Your task to perform on an android device: turn notification dots off Image 0: 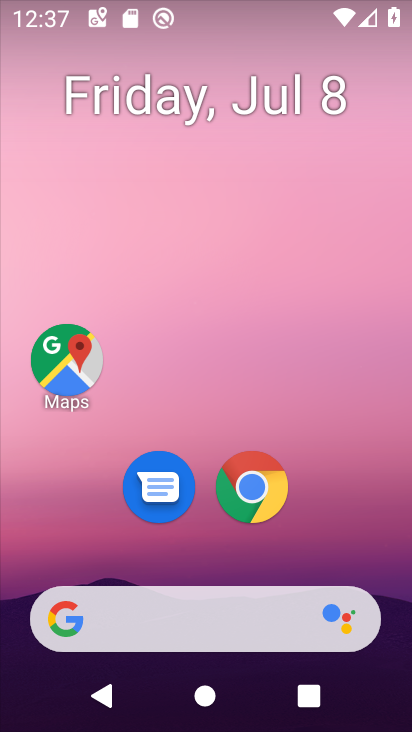
Step 0: drag from (335, 526) to (362, 139)
Your task to perform on an android device: turn notification dots off Image 1: 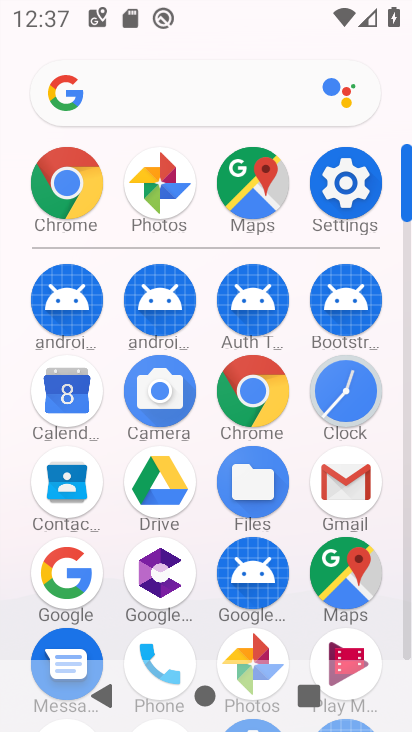
Step 1: click (353, 199)
Your task to perform on an android device: turn notification dots off Image 2: 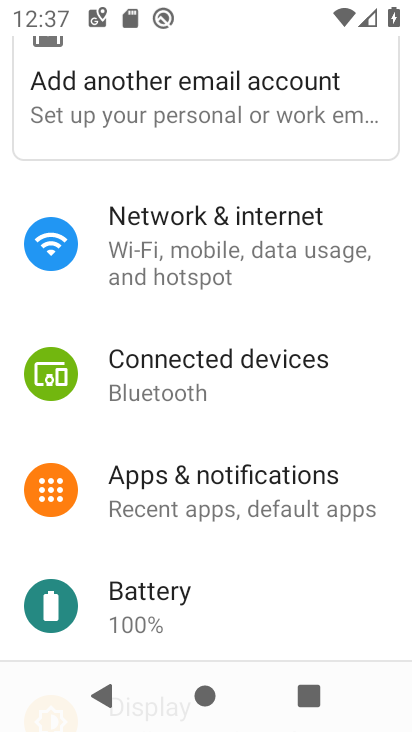
Step 2: drag from (376, 419) to (370, 286)
Your task to perform on an android device: turn notification dots off Image 3: 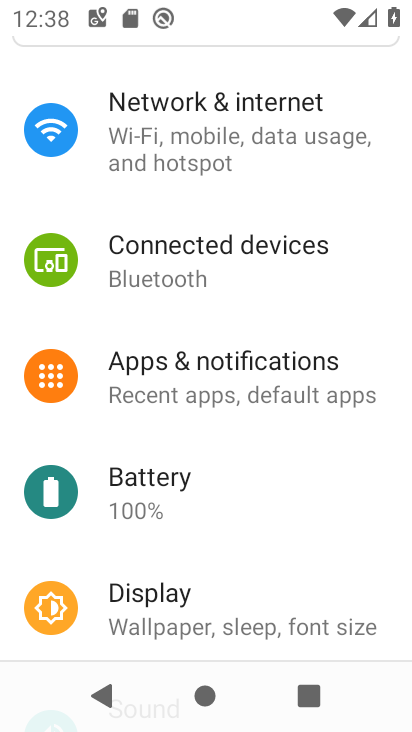
Step 3: drag from (297, 515) to (303, 411)
Your task to perform on an android device: turn notification dots off Image 4: 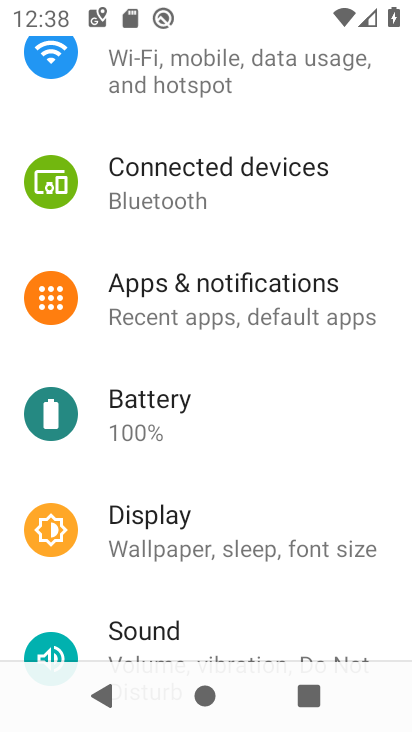
Step 4: drag from (327, 592) to (331, 408)
Your task to perform on an android device: turn notification dots off Image 5: 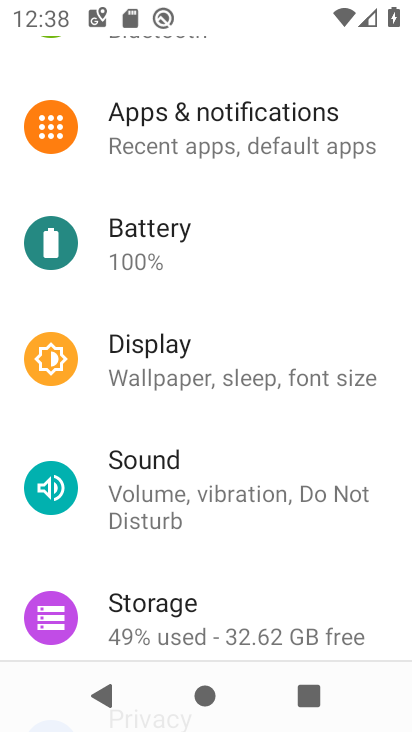
Step 5: click (276, 148)
Your task to perform on an android device: turn notification dots off Image 6: 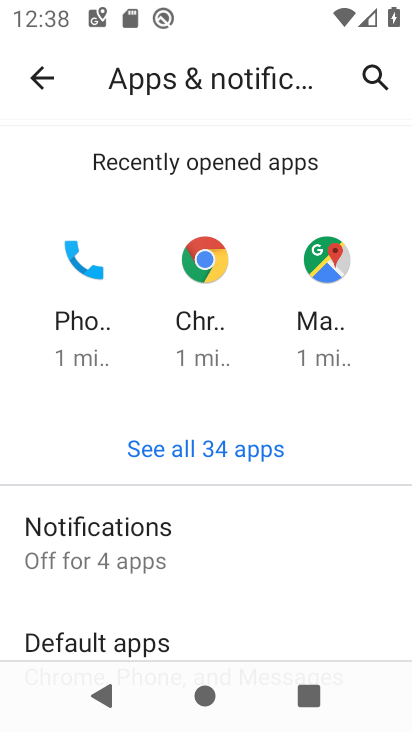
Step 6: drag from (324, 565) to (328, 419)
Your task to perform on an android device: turn notification dots off Image 7: 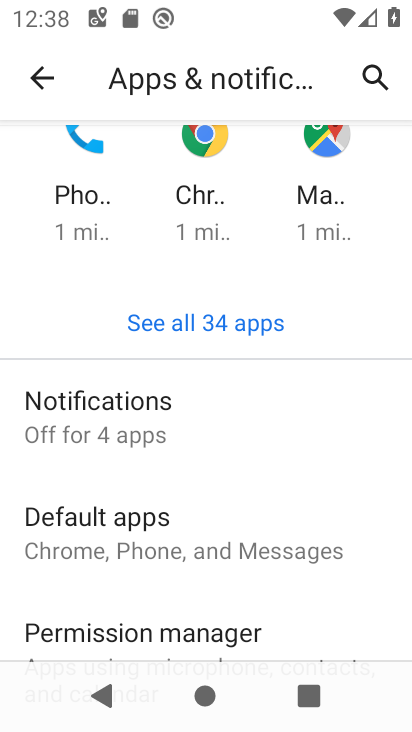
Step 7: click (195, 430)
Your task to perform on an android device: turn notification dots off Image 8: 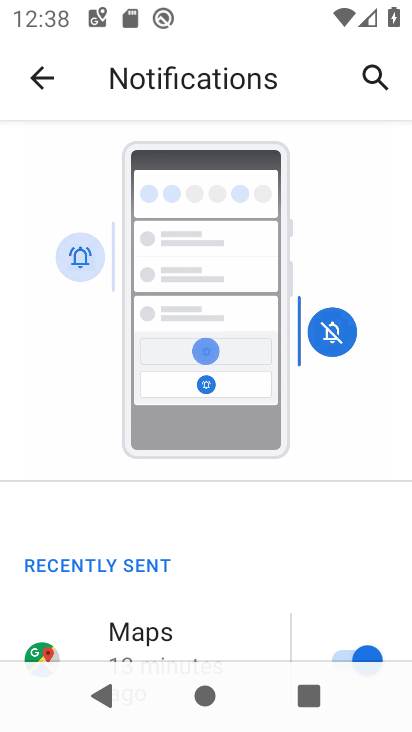
Step 8: drag from (323, 560) to (318, 485)
Your task to perform on an android device: turn notification dots off Image 9: 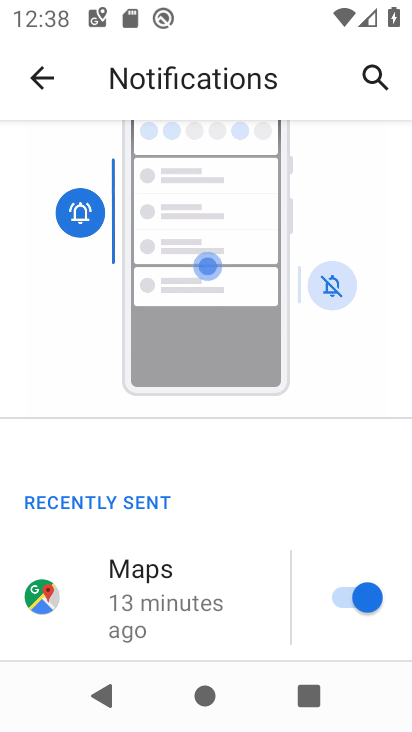
Step 9: drag from (253, 587) to (266, 467)
Your task to perform on an android device: turn notification dots off Image 10: 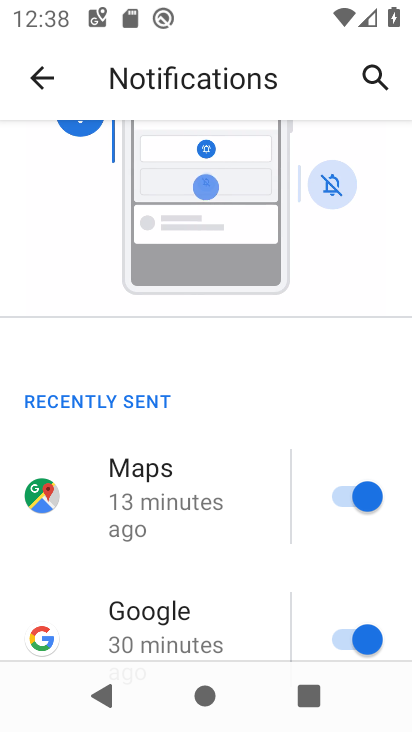
Step 10: drag from (254, 573) to (255, 459)
Your task to perform on an android device: turn notification dots off Image 11: 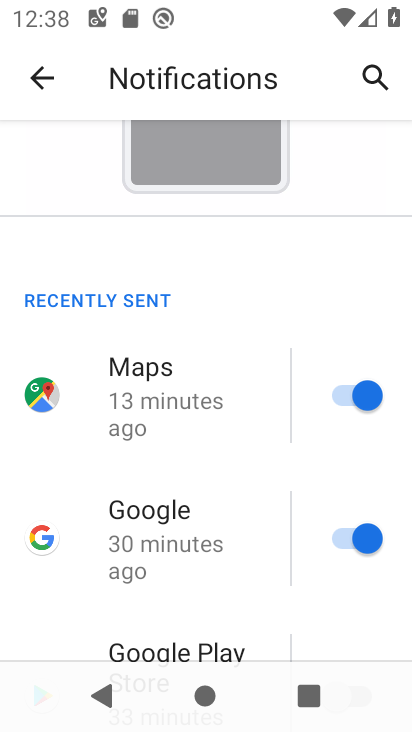
Step 11: drag from (245, 553) to (254, 425)
Your task to perform on an android device: turn notification dots off Image 12: 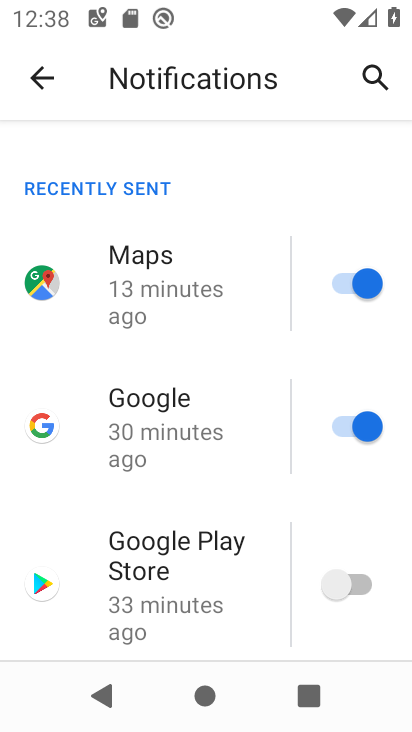
Step 12: drag from (253, 574) to (259, 428)
Your task to perform on an android device: turn notification dots off Image 13: 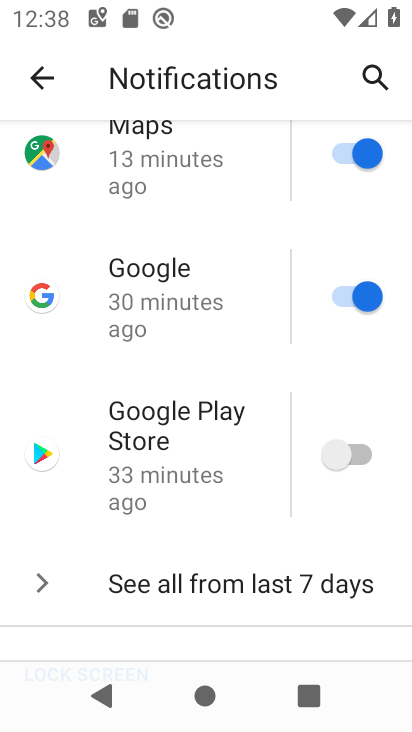
Step 13: drag from (256, 536) to (268, 395)
Your task to perform on an android device: turn notification dots off Image 14: 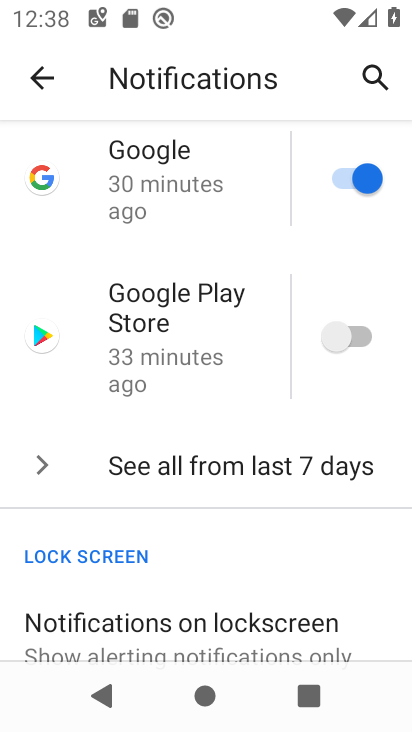
Step 14: drag from (274, 530) to (279, 414)
Your task to perform on an android device: turn notification dots off Image 15: 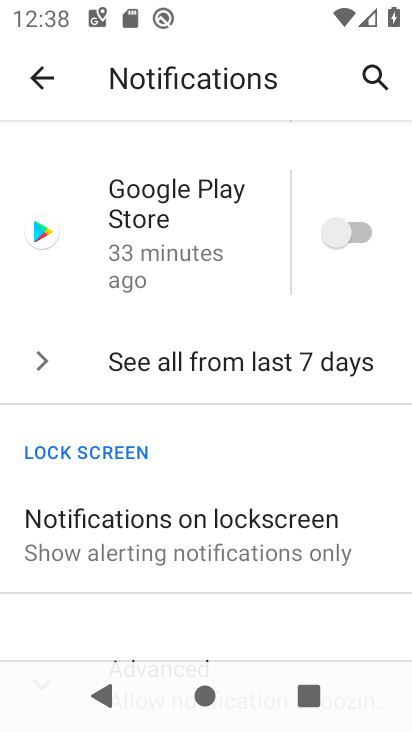
Step 15: drag from (336, 616) to (340, 491)
Your task to perform on an android device: turn notification dots off Image 16: 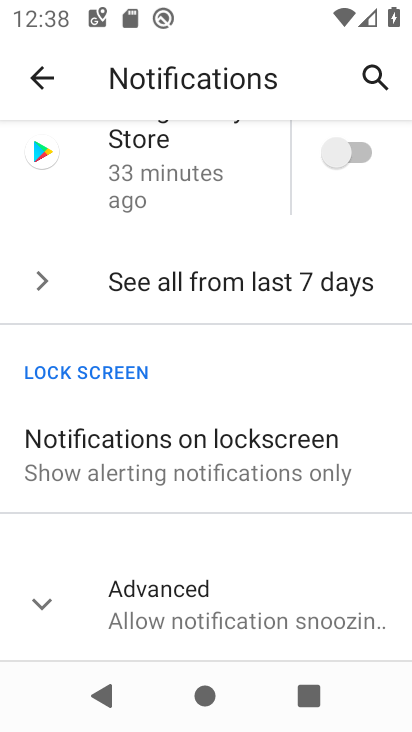
Step 16: click (323, 584)
Your task to perform on an android device: turn notification dots off Image 17: 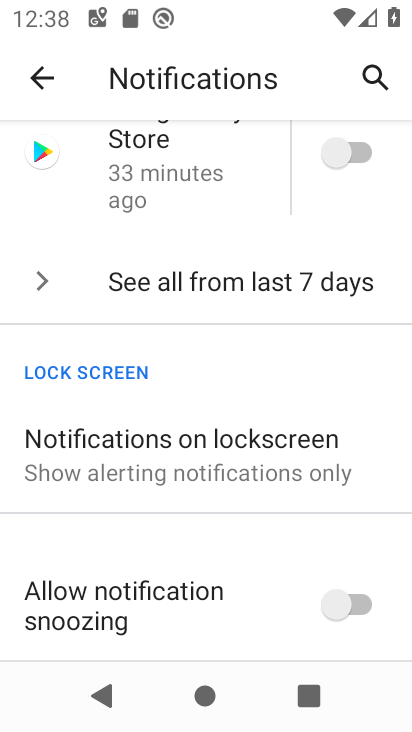
Step 17: drag from (296, 622) to (306, 443)
Your task to perform on an android device: turn notification dots off Image 18: 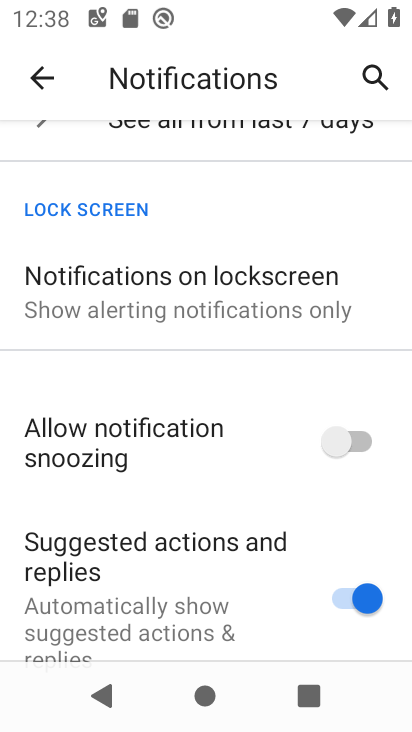
Step 18: drag from (280, 608) to (286, 490)
Your task to perform on an android device: turn notification dots off Image 19: 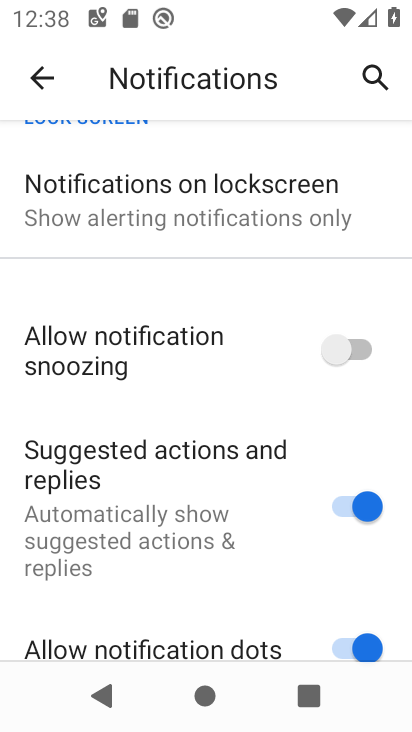
Step 19: drag from (280, 588) to (284, 484)
Your task to perform on an android device: turn notification dots off Image 20: 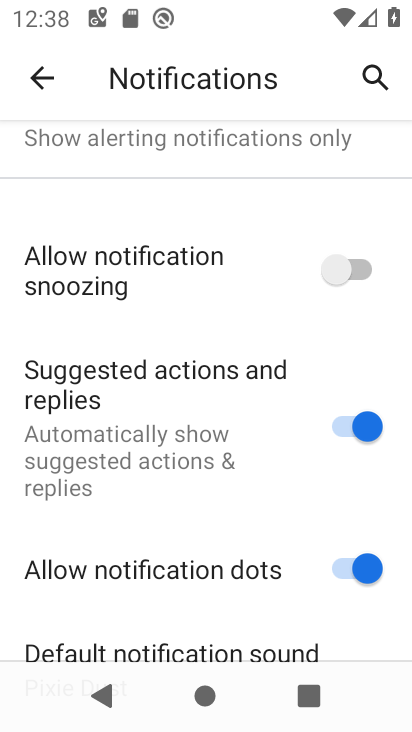
Step 20: click (344, 572)
Your task to perform on an android device: turn notification dots off Image 21: 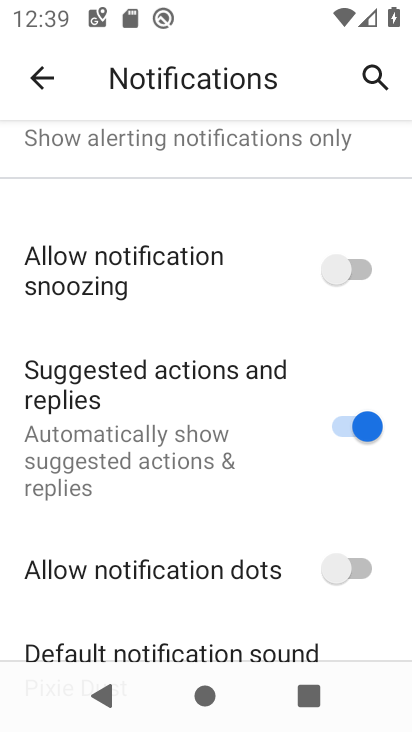
Step 21: task complete